Your task to perform on an android device: Go to calendar. Show me events next week Image 0: 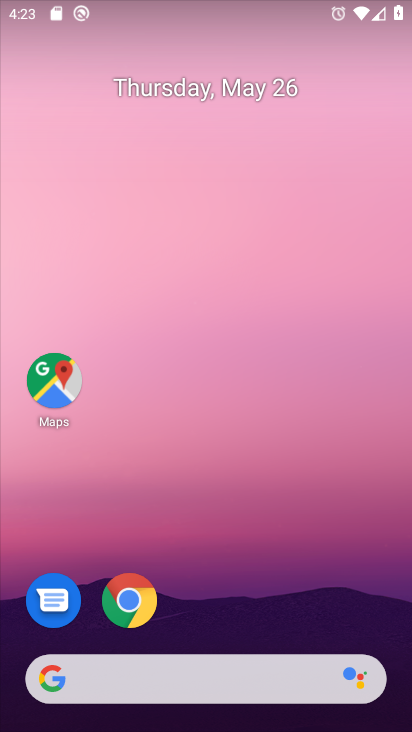
Step 0: drag from (228, 617) to (216, 4)
Your task to perform on an android device: Go to calendar. Show me events next week Image 1: 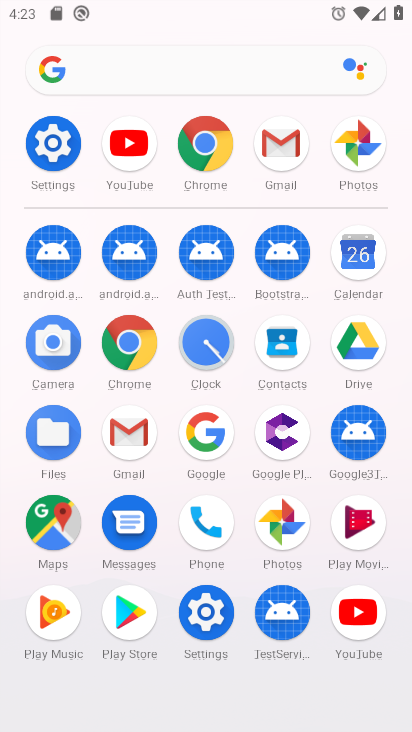
Step 1: click (350, 267)
Your task to perform on an android device: Go to calendar. Show me events next week Image 2: 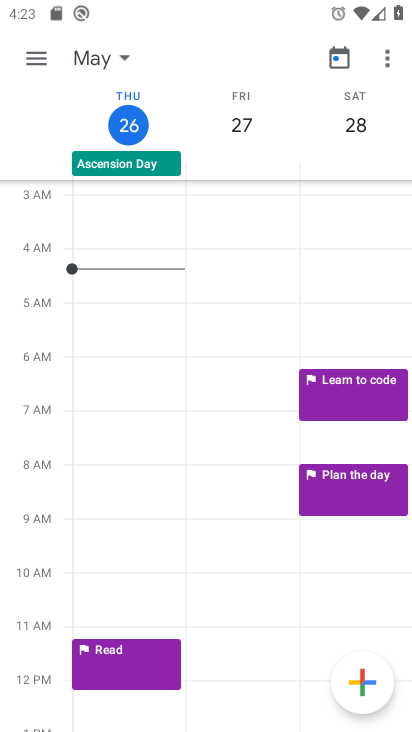
Step 2: click (38, 56)
Your task to perform on an android device: Go to calendar. Show me events next week Image 3: 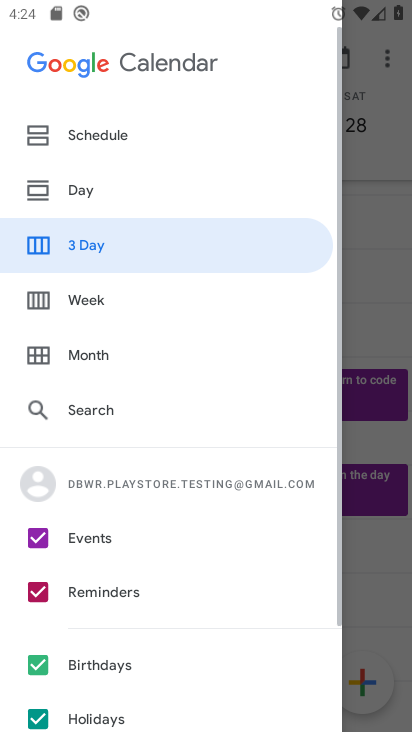
Step 3: drag from (107, 559) to (135, 393)
Your task to perform on an android device: Go to calendar. Show me events next week Image 4: 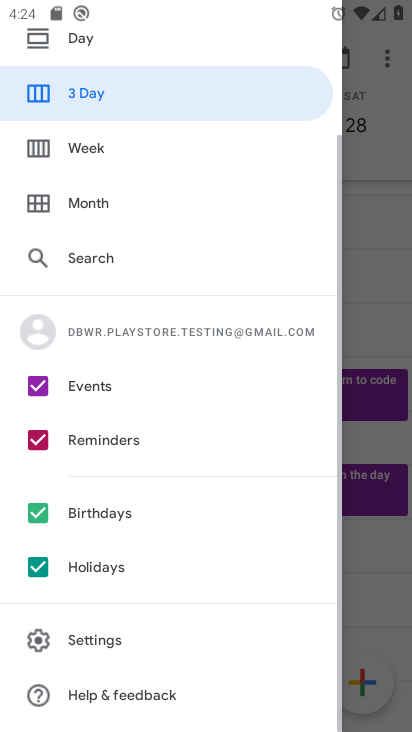
Step 4: click (122, 443)
Your task to perform on an android device: Go to calendar. Show me events next week Image 5: 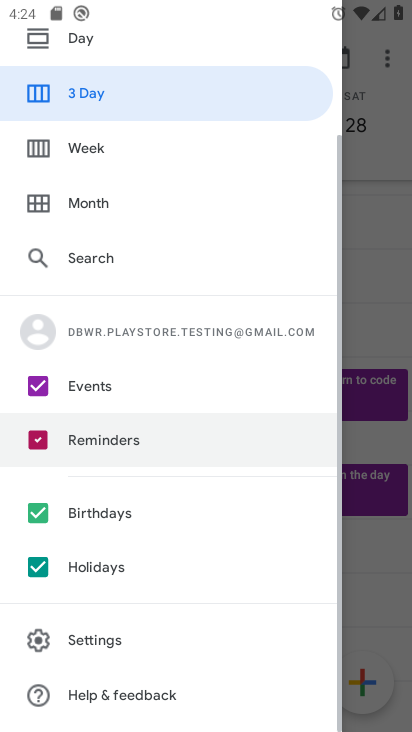
Step 5: click (101, 522)
Your task to perform on an android device: Go to calendar. Show me events next week Image 6: 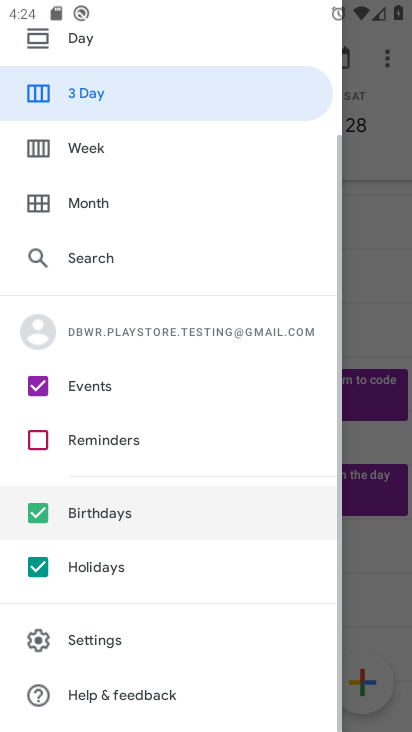
Step 6: click (96, 561)
Your task to perform on an android device: Go to calendar. Show me events next week Image 7: 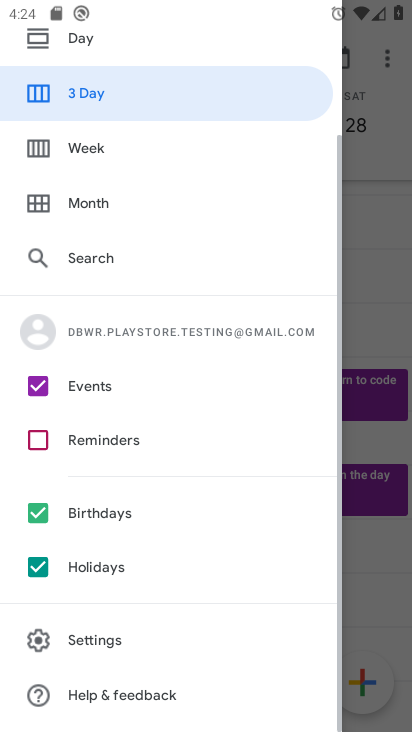
Step 7: click (103, 514)
Your task to perform on an android device: Go to calendar. Show me events next week Image 8: 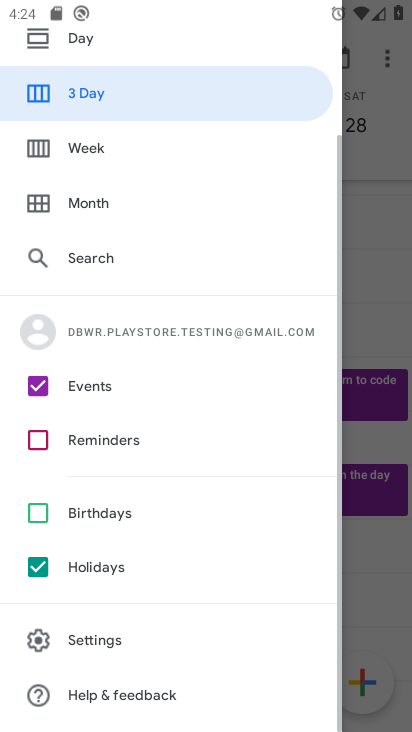
Step 8: click (79, 561)
Your task to perform on an android device: Go to calendar. Show me events next week Image 9: 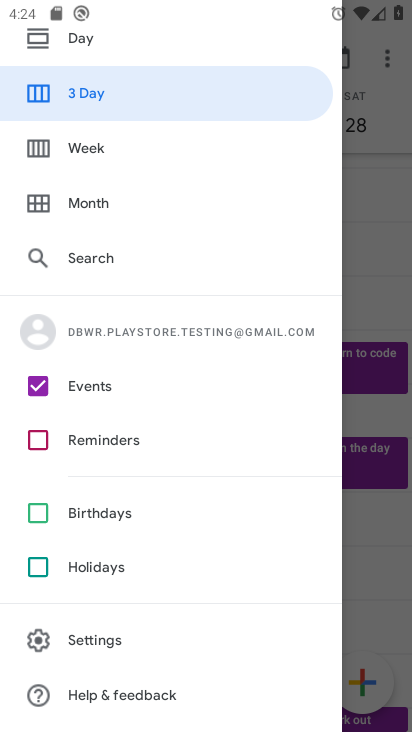
Step 9: click (101, 143)
Your task to perform on an android device: Go to calendar. Show me events next week Image 10: 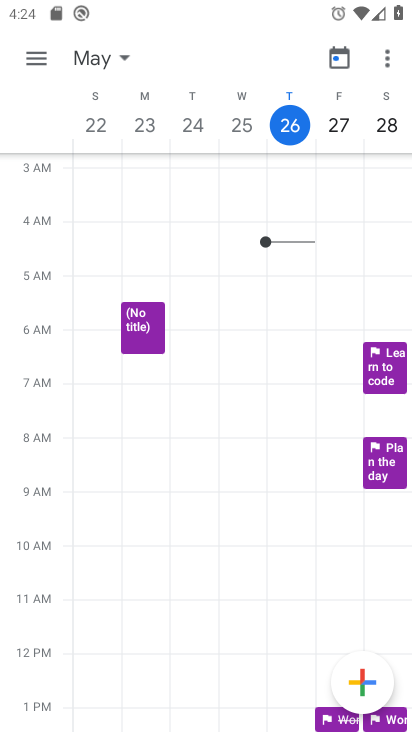
Step 10: task complete